Your task to perform on an android device: allow cookies in the chrome app Image 0: 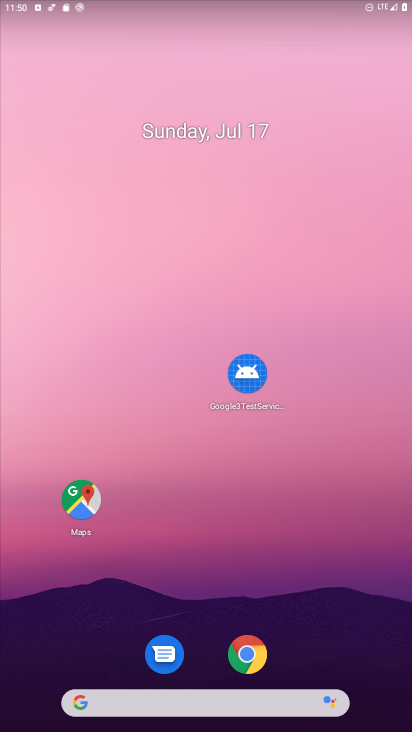
Step 0: click (237, 642)
Your task to perform on an android device: allow cookies in the chrome app Image 1: 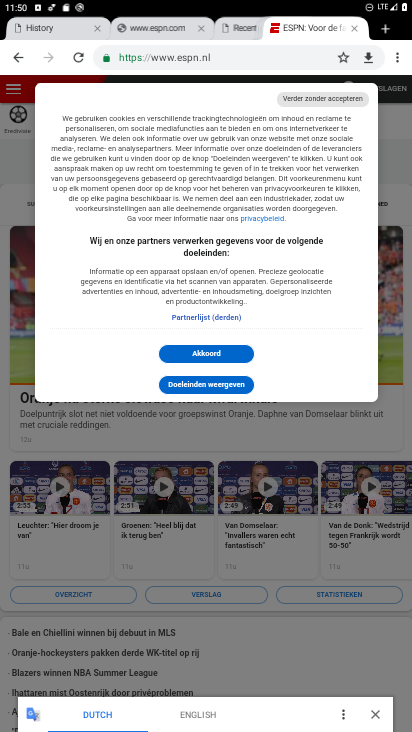
Step 1: click (400, 60)
Your task to perform on an android device: allow cookies in the chrome app Image 2: 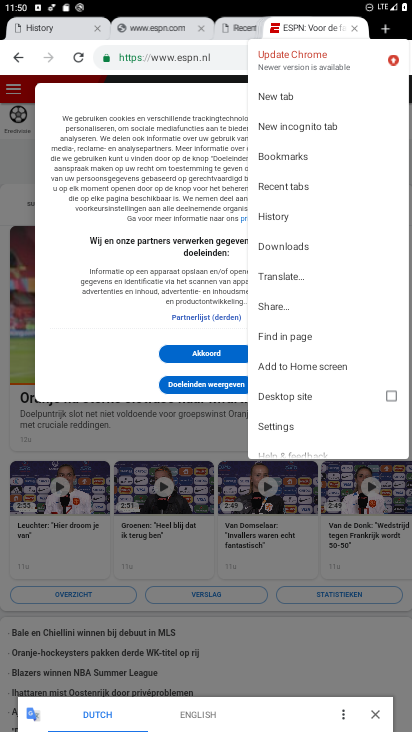
Step 2: click (291, 423)
Your task to perform on an android device: allow cookies in the chrome app Image 3: 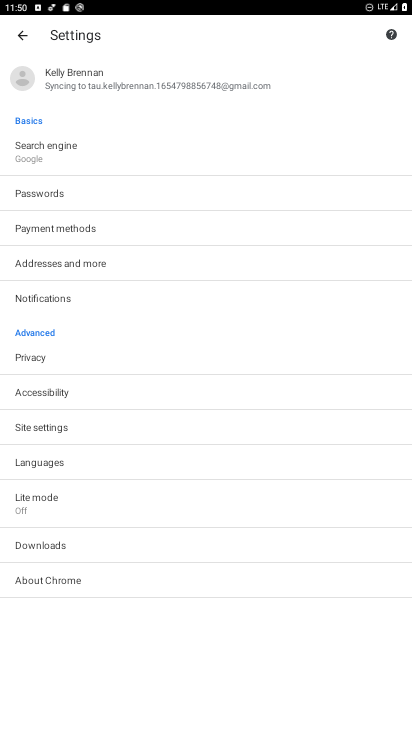
Step 3: click (91, 425)
Your task to perform on an android device: allow cookies in the chrome app Image 4: 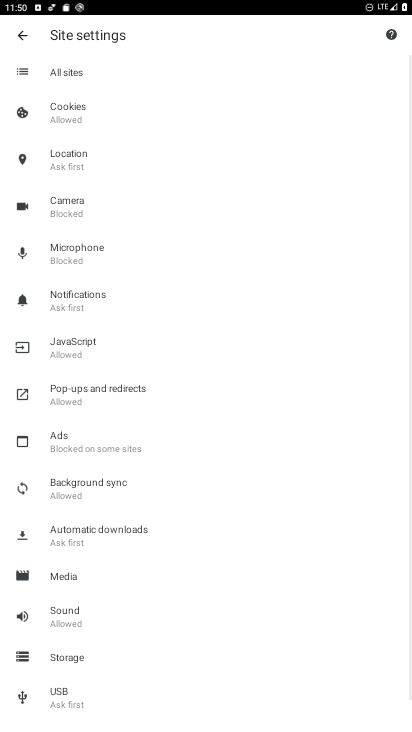
Step 4: click (74, 114)
Your task to perform on an android device: allow cookies in the chrome app Image 5: 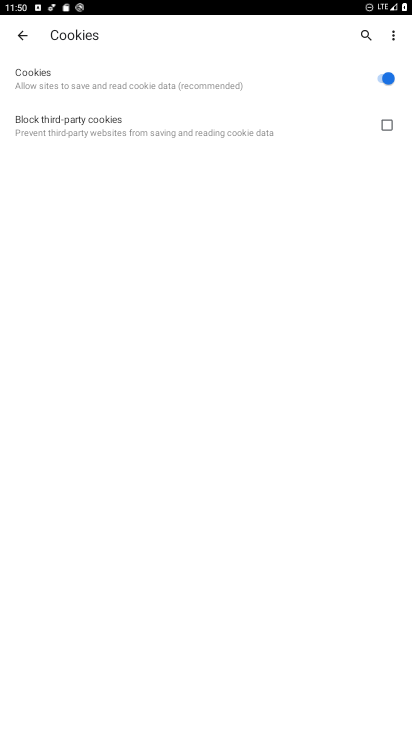
Step 5: task complete